Your task to perform on an android device: Show me recent news Image 0: 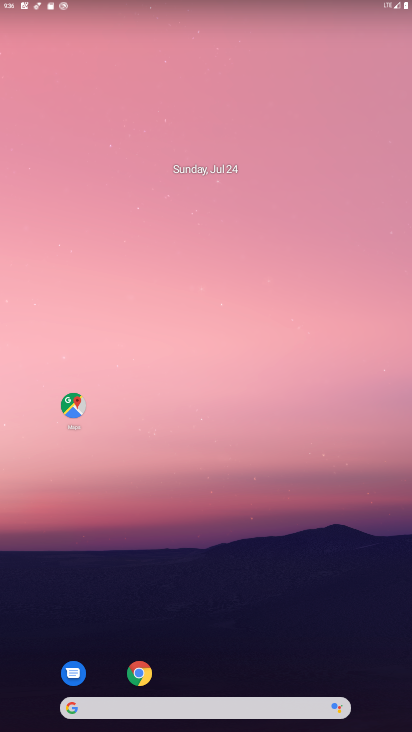
Step 0: drag from (190, 345) to (210, 1)
Your task to perform on an android device: Show me recent news Image 1: 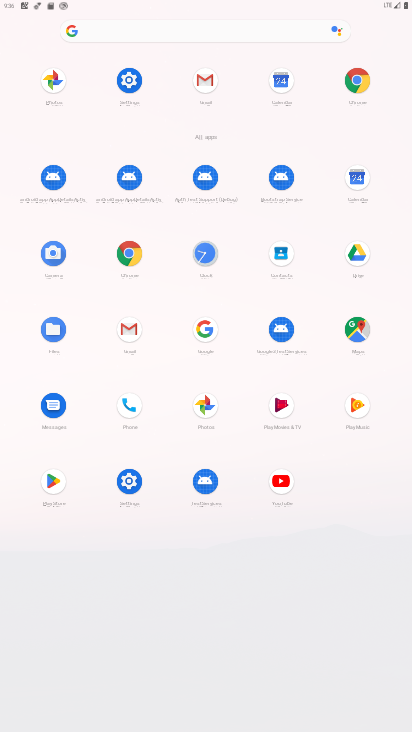
Step 1: click (193, 25)
Your task to perform on an android device: Show me recent news Image 2: 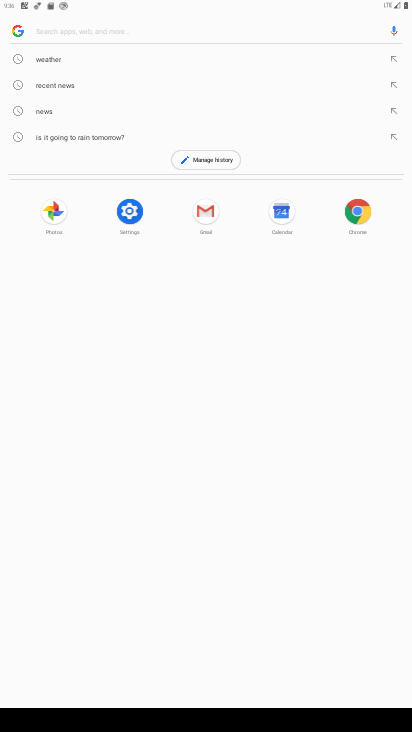
Step 2: click (61, 82)
Your task to perform on an android device: Show me recent news Image 3: 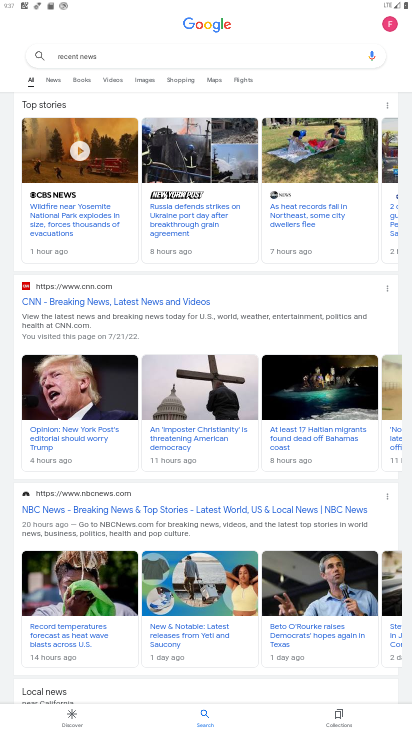
Step 3: task complete